Your task to perform on an android device: Go to location settings Image 0: 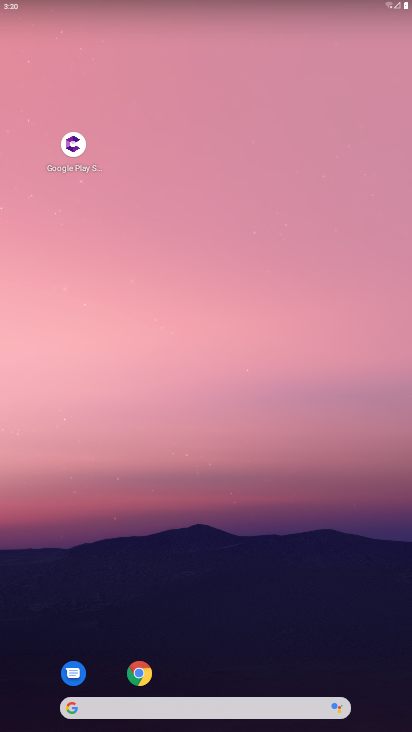
Step 0: drag from (209, 697) to (340, 176)
Your task to perform on an android device: Go to location settings Image 1: 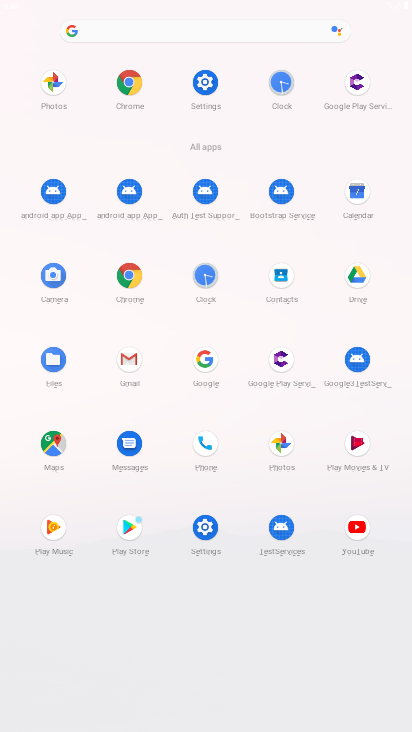
Step 1: click (206, 81)
Your task to perform on an android device: Go to location settings Image 2: 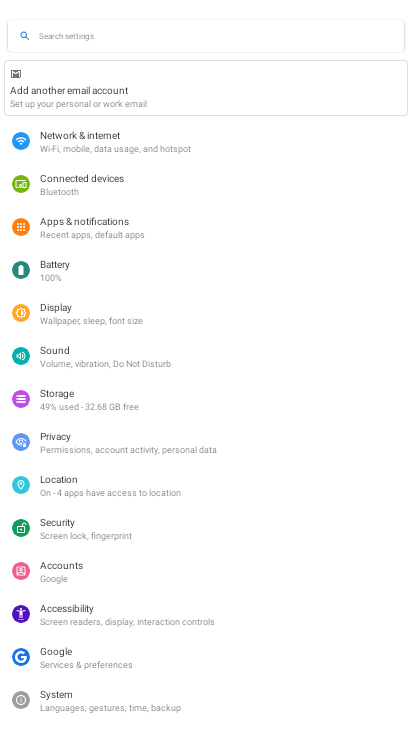
Step 2: click (88, 473)
Your task to perform on an android device: Go to location settings Image 3: 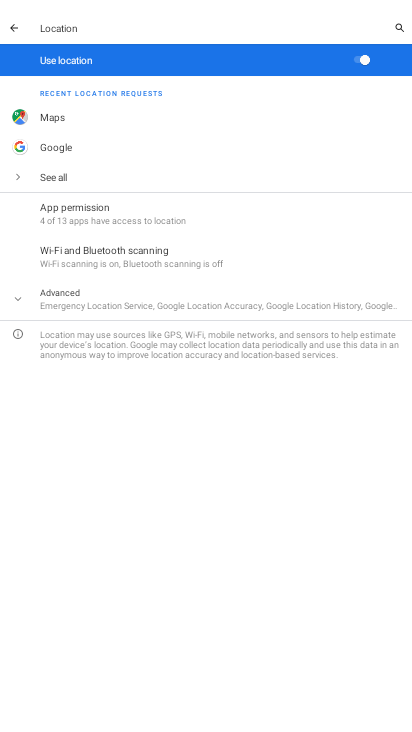
Step 3: task complete